Your task to perform on an android device: Open Google Chrome and open the bookmarks view Image 0: 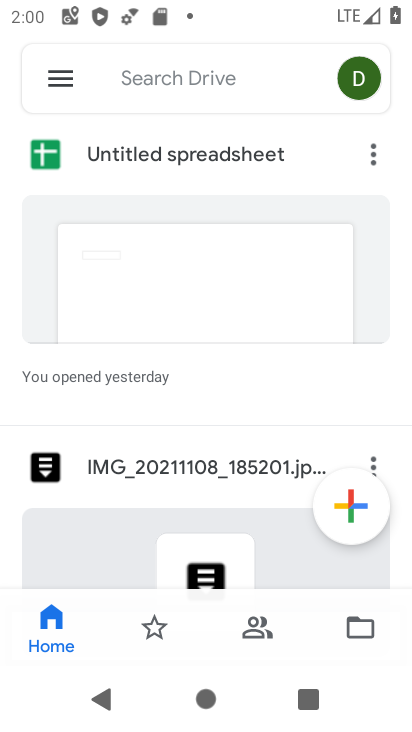
Step 0: press home button
Your task to perform on an android device: Open Google Chrome and open the bookmarks view Image 1: 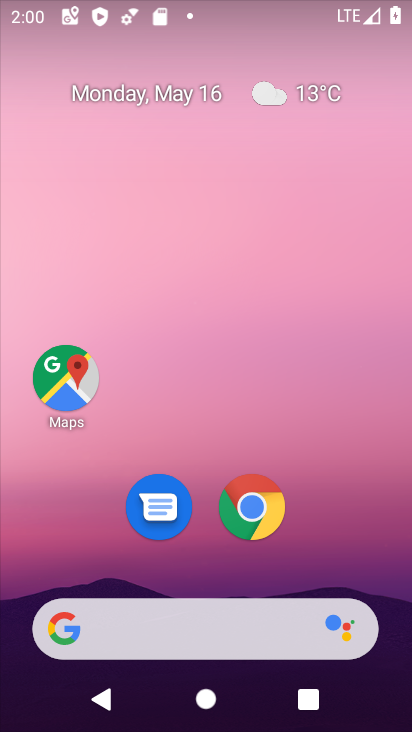
Step 1: drag from (337, 509) to (223, 58)
Your task to perform on an android device: Open Google Chrome and open the bookmarks view Image 2: 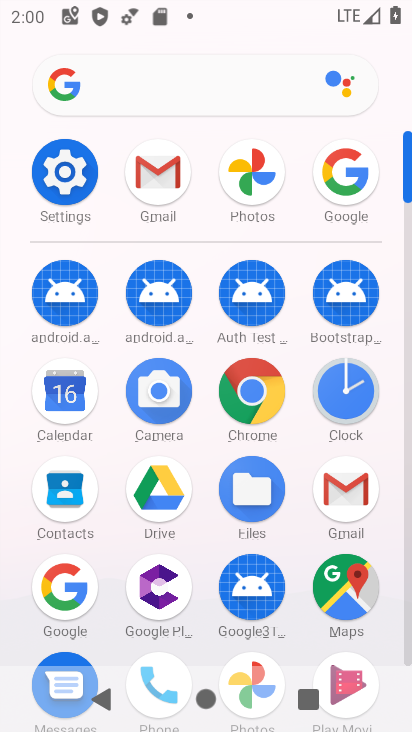
Step 2: click (253, 393)
Your task to perform on an android device: Open Google Chrome and open the bookmarks view Image 3: 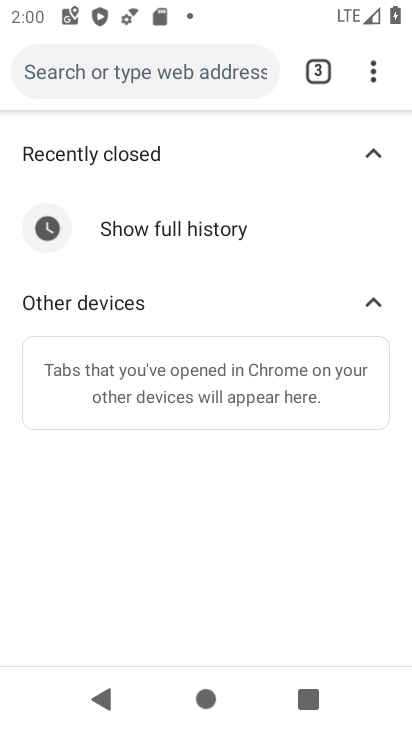
Step 3: click (376, 80)
Your task to perform on an android device: Open Google Chrome and open the bookmarks view Image 4: 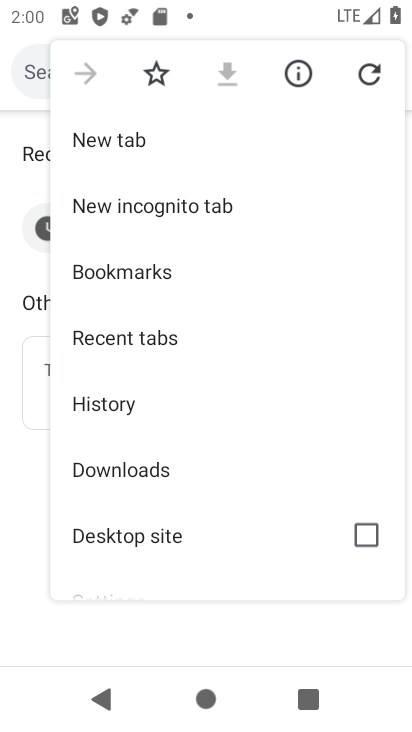
Step 4: click (187, 261)
Your task to perform on an android device: Open Google Chrome and open the bookmarks view Image 5: 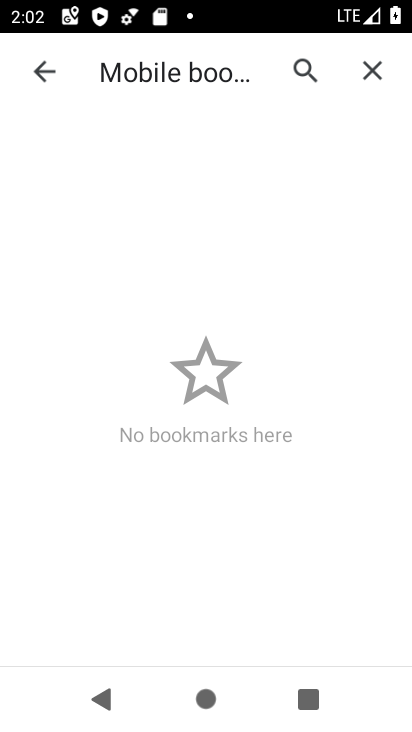
Step 5: task complete